Your task to perform on an android device: turn off translation in the chrome app Image 0: 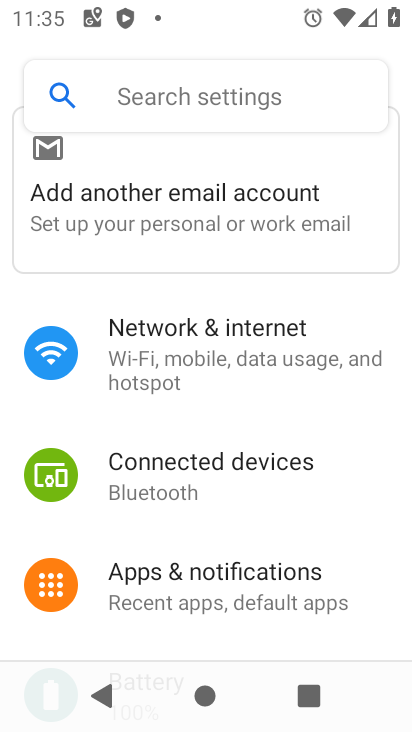
Step 0: press home button
Your task to perform on an android device: turn off translation in the chrome app Image 1: 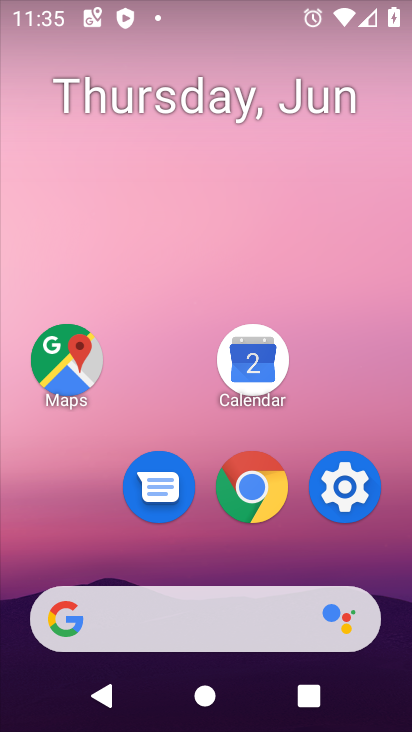
Step 1: click (259, 488)
Your task to perform on an android device: turn off translation in the chrome app Image 2: 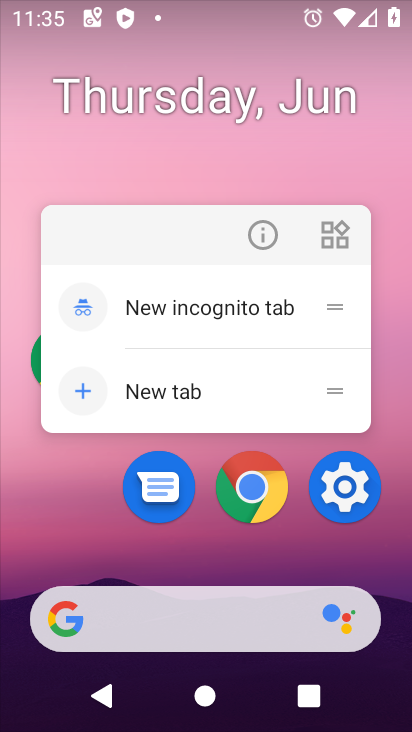
Step 2: click (255, 506)
Your task to perform on an android device: turn off translation in the chrome app Image 3: 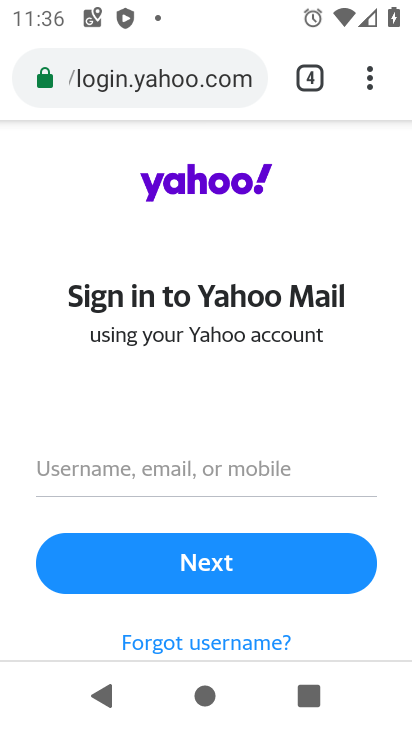
Step 3: click (361, 76)
Your task to perform on an android device: turn off translation in the chrome app Image 4: 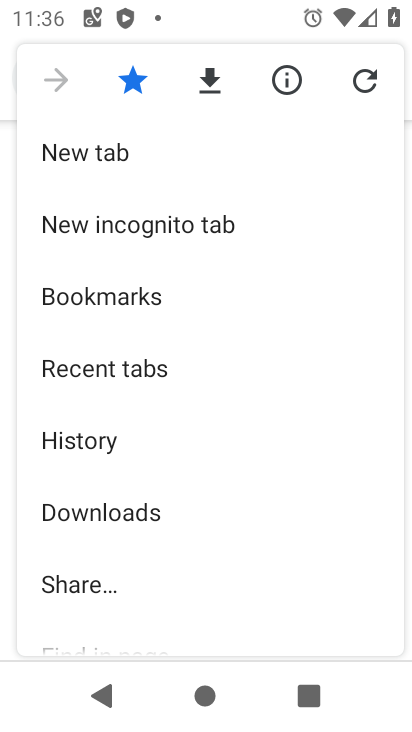
Step 4: drag from (95, 613) to (161, 406)
Your task to perform on an android device: turn off translation in the chrome app Image 5: 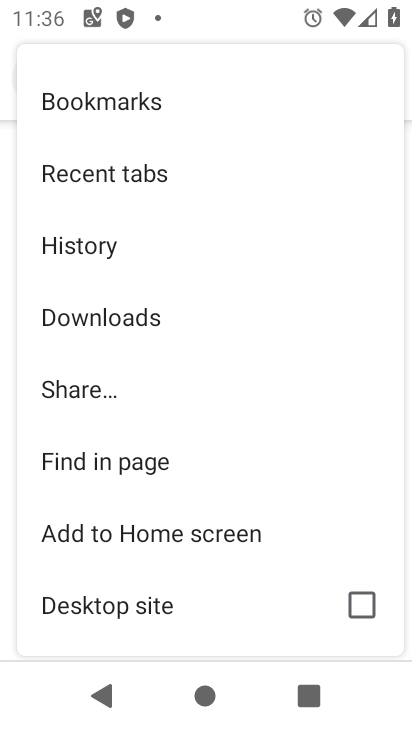
Step 5: drag from (100, 587) to (137, 412)
Your task to perform on an android device: turn off translation in the chrome app Image 6: 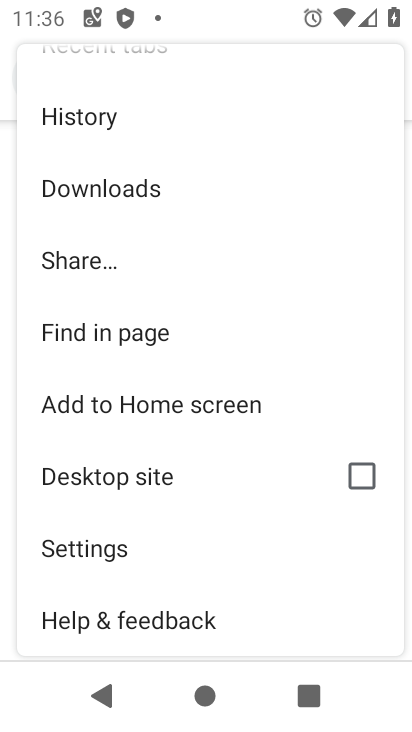
Step 6: click (132, 539)
Your task to perform on an android device: turn off translation in the chrome app Image 7: 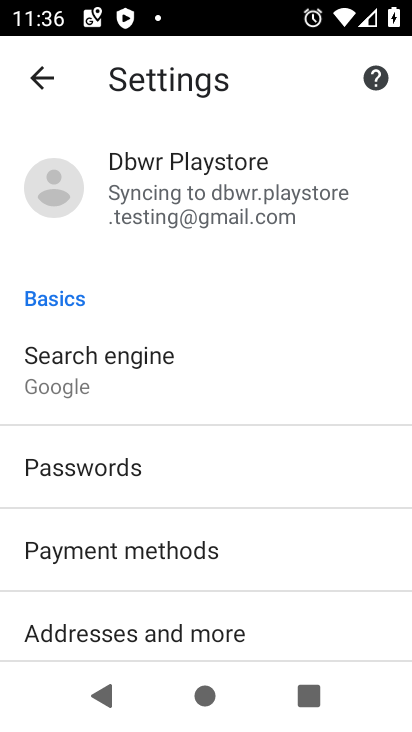
Step 7: drag from (79, 576) to (116, 209)
Your task to perform on an android device: turn off translation in the chrome app Image 8: 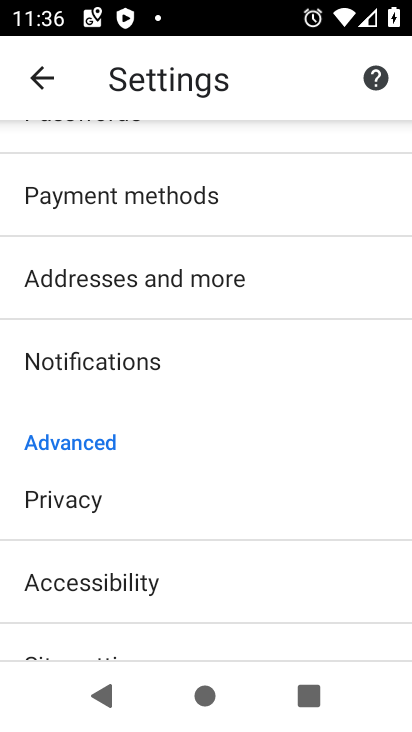
Step 8: drag from (176, 496) to (190, 311)
Your task to perform on an android device: turn off translation in the chrome app Image 9: 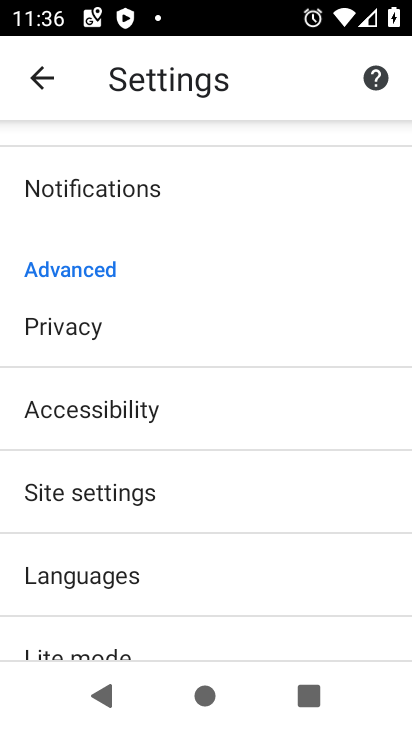
Step 9: click (131, 570)
Your task to perform on an android device: turn off translation in the chrome app Image 10: 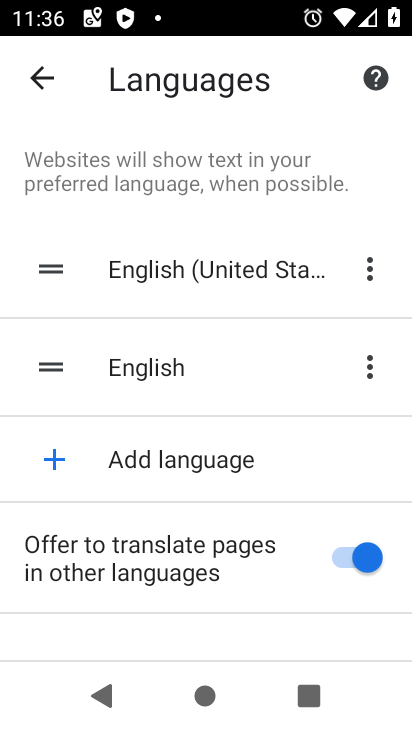
Step 10: click (352, 560)
Your task to perform on an android device: turn off translation in the chrome app Image 11: 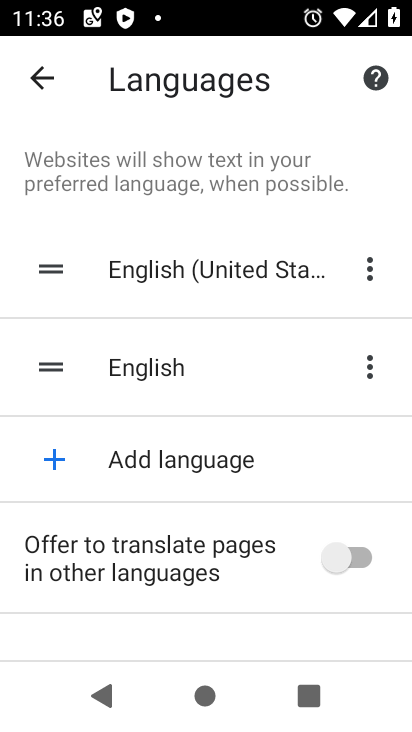
Step 11: task complete